Your task to perform on an android device: Show me popular videos on Youtube Image 0: 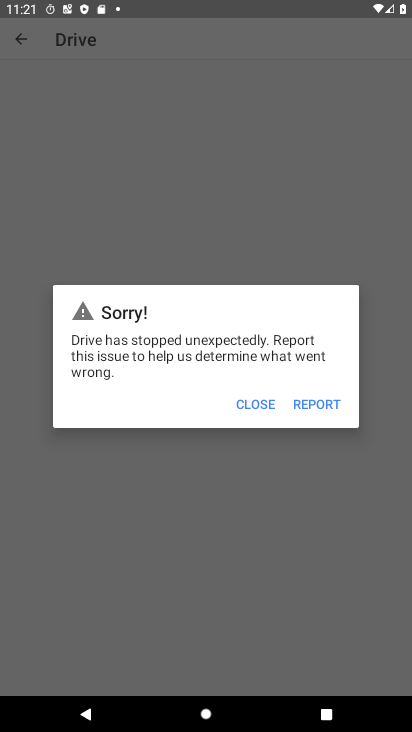
Step 0: press home button
Your task to perform on an android device: Show me popular videos on Youtube Image 1: 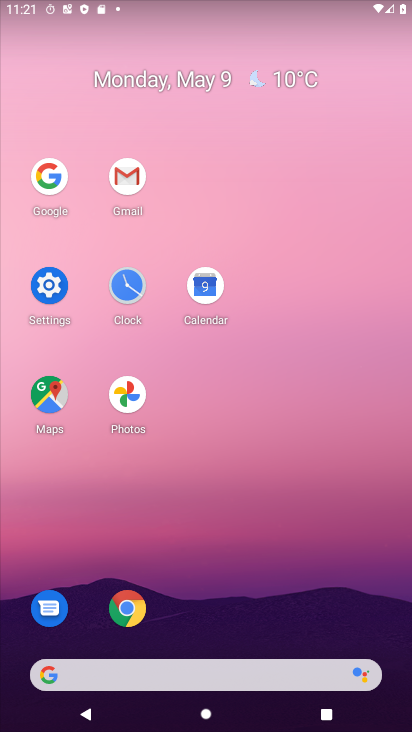
Step 1: drag from (228, 623) to (250, 95)
Your task to perform on an android device: Show me popular videos on Youtube Image 2: 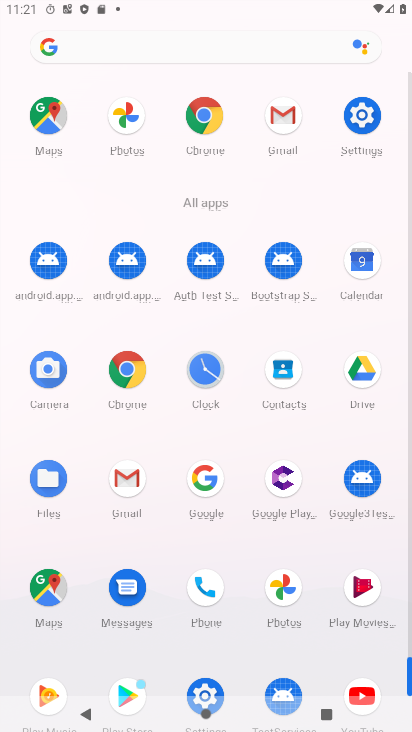
Step 2: drag from (233, 636) to (272, 170)
Your task to perform on an android device: Show me popular videos on Youtube Image 3: 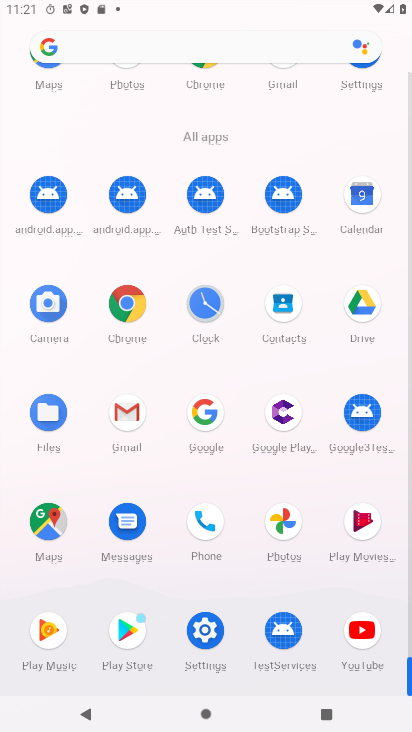
Step 3: click (363, 631)
Your task to perform on an android device: Show me popular videos on Youtube Image 4: 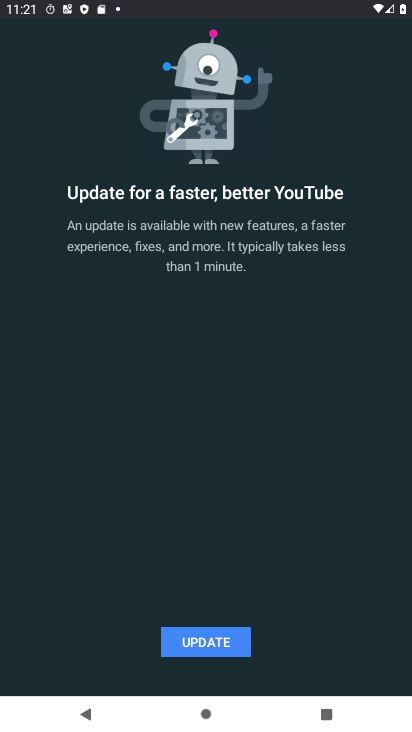
Step 4: click (194, 648)
Your task to perform on an android device: Show me popular videos on Youtube Image 5: 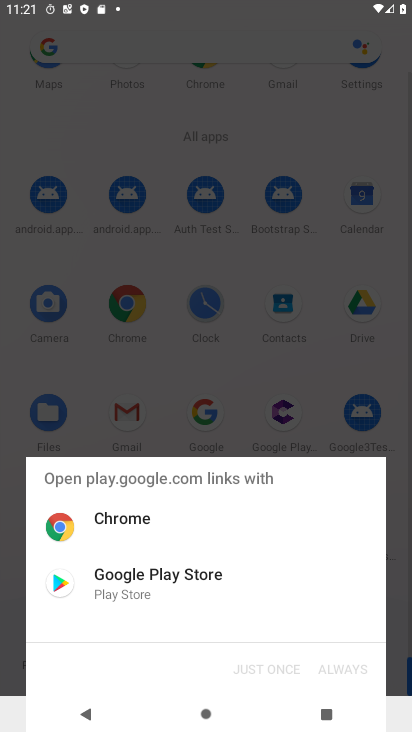
Step 5: click (284, 568)
Your task to perform on an android device: Show me popular videos on Youtube Image 6: 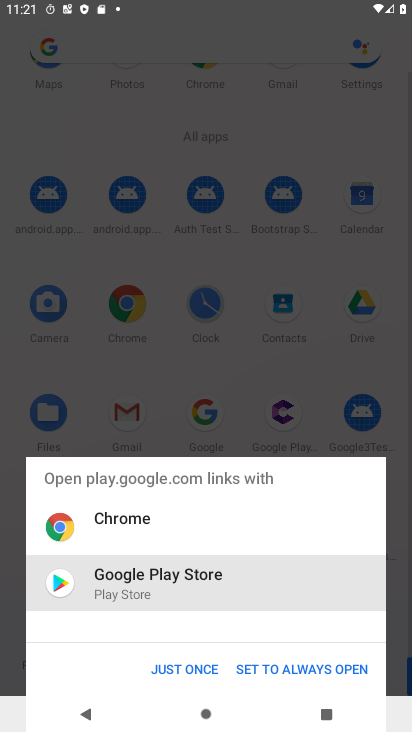
Step 6: click (284, 568)
Your task to perform on an android device: Show me popular videos on Youtube Image 7: 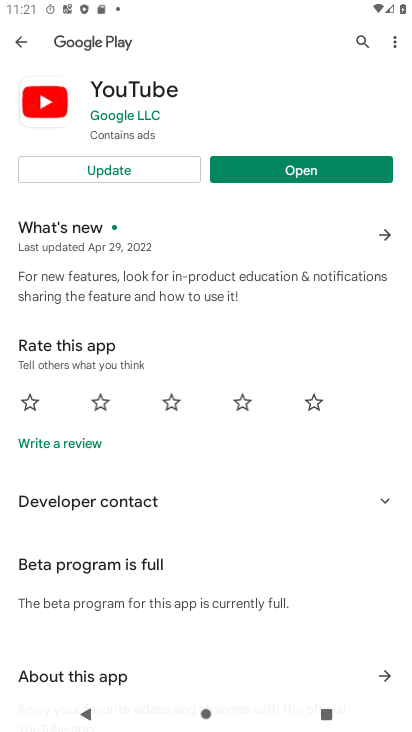
Step 7: click (144, 168)
Your task to perform on an android device: Show me popular videos on Youtube Image 8: 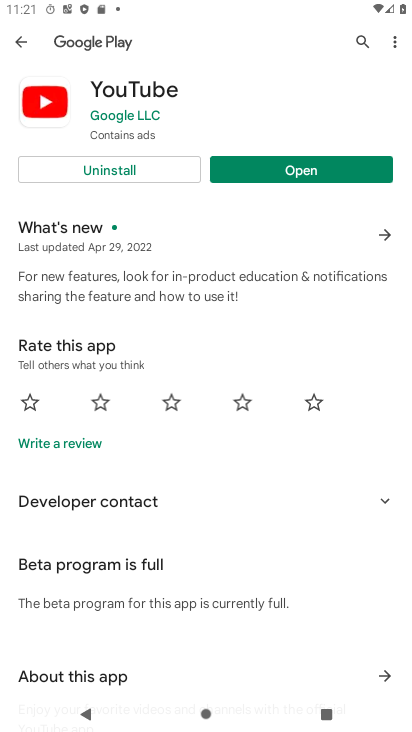
Step 8: click (259, 175)
Your task to perform on an android device: Show me popular videos on Youtube Image 9: 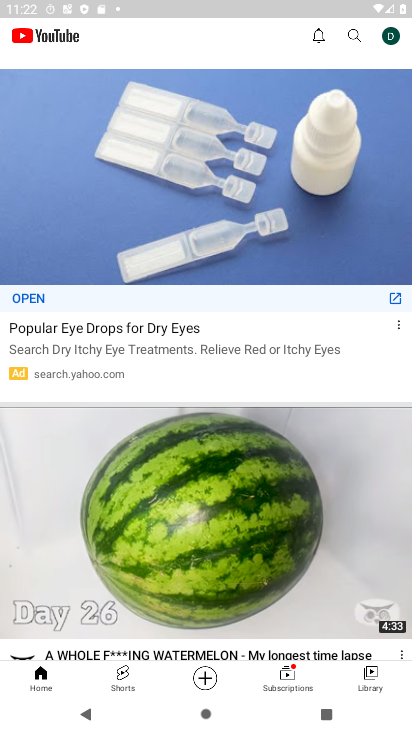
Step 9: task complete